Your task to perform on an android device: Open Wikipedia Image 0: 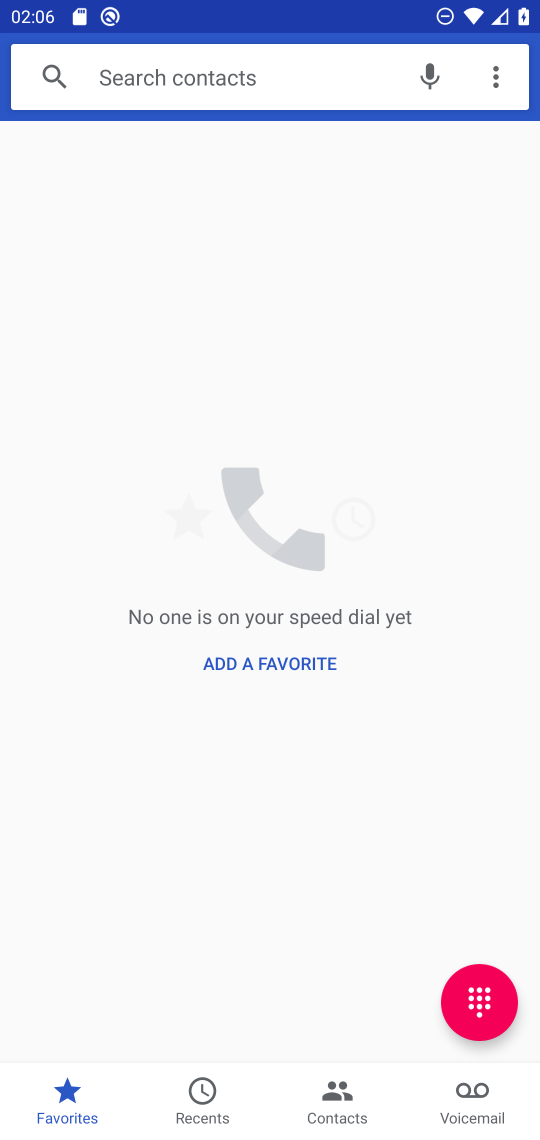
Step 0: press home button
Your task to perform on an android device: Open Wikipedia Image 1: 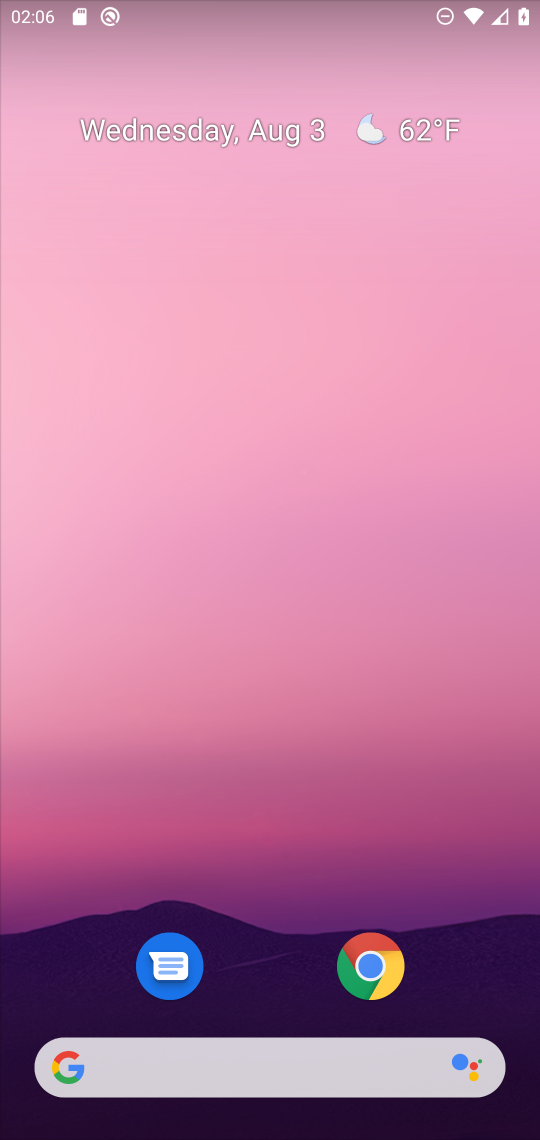
Step 1: click (370, 953)
Your task to perform on an android device: Open Wikipedia Image 2: 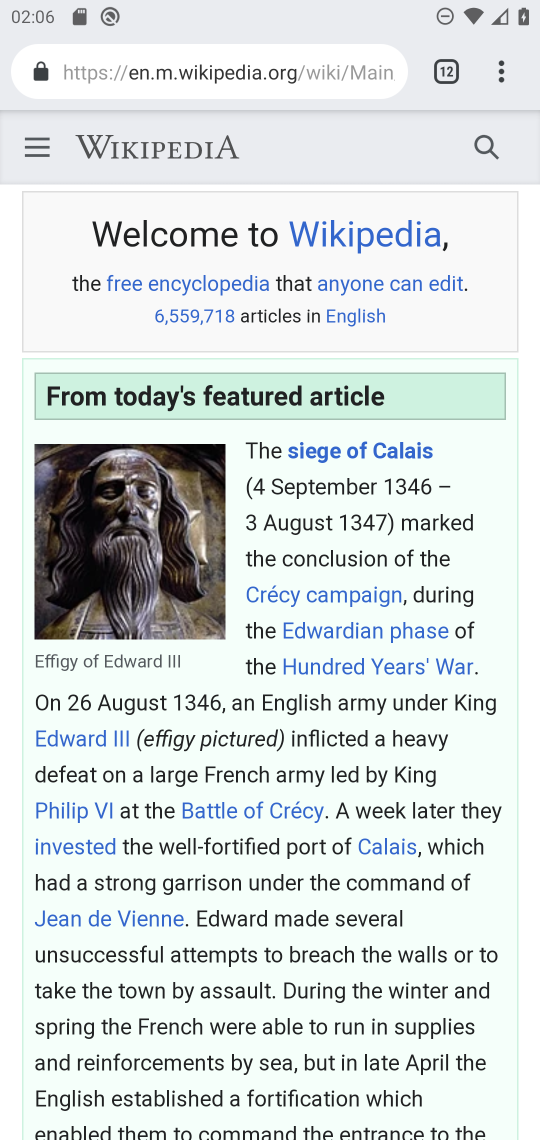
Step 2: task complete